Your task to perform on an android device: Show me productivity apps on the Play Store Image 0: 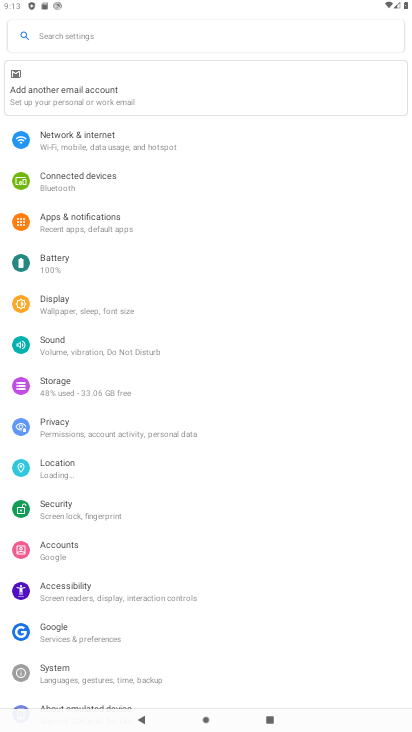
Step 0: press home button
Your task to perform on an android device: Show me productivity apps on the Play Store Image 1: 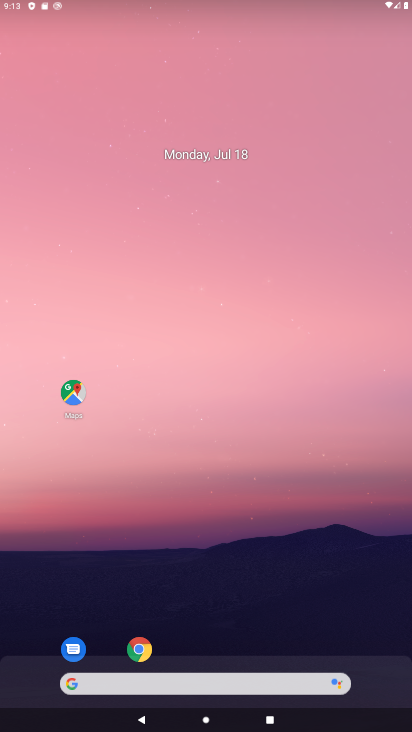
Step 1: drag from (264, 514) to (279, 2)
Your task to perform on an android device: Show me productivity apps on the Play Store Image 2: 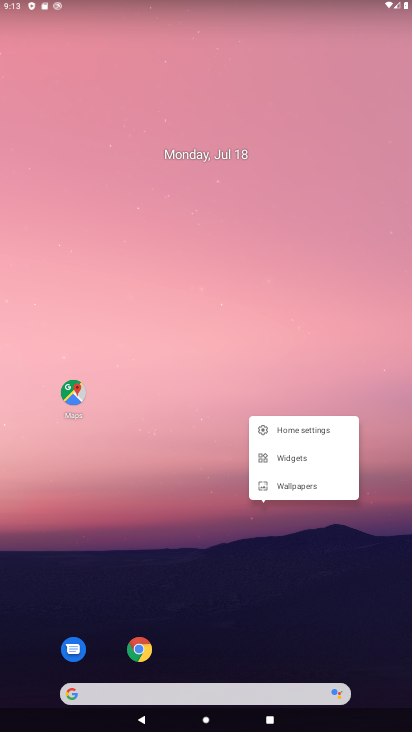
Step 2: click (271, 663)
Your task to perform on an android device: Show me productivity apps on the Play Store Image 3: 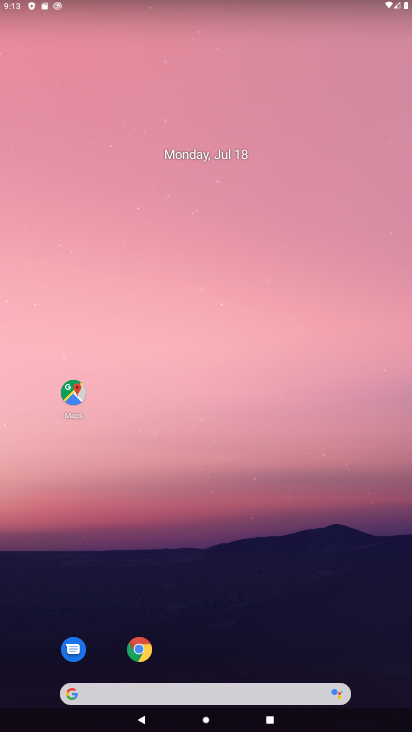
Step 3: drag from (286, 680) to (255, 96)
Your task to perform on an android device: Show me productivity apps on the Play Store Image 4: 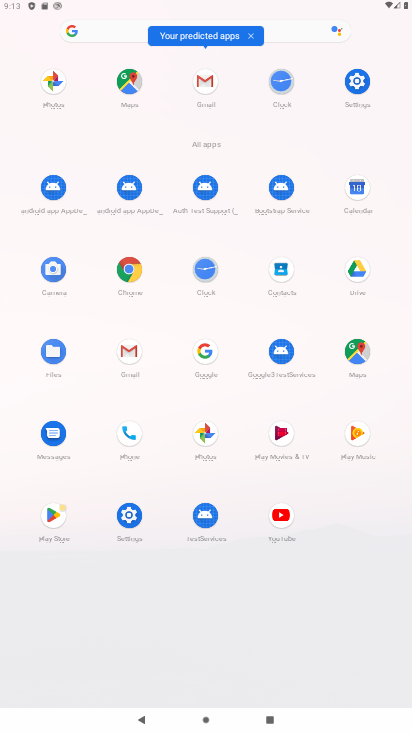
Step 4: click (57, 519)
Your task to perform on an android device: Show me productivity apps on the Play Store Image 5: 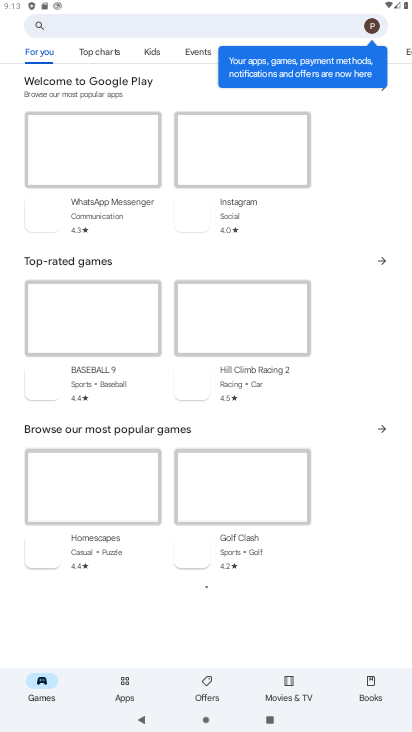
Step 5: click (134, 26)
Your task to perform on an android device: Show me productivity apps on the Play Store Image 6: 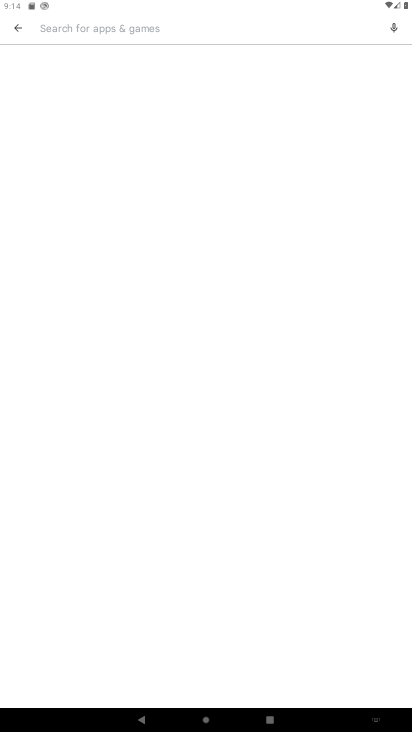
Step 6: type "productivity apps"
Your task to perform on an android device: Show me productivity apps on the Play Store Image 7: 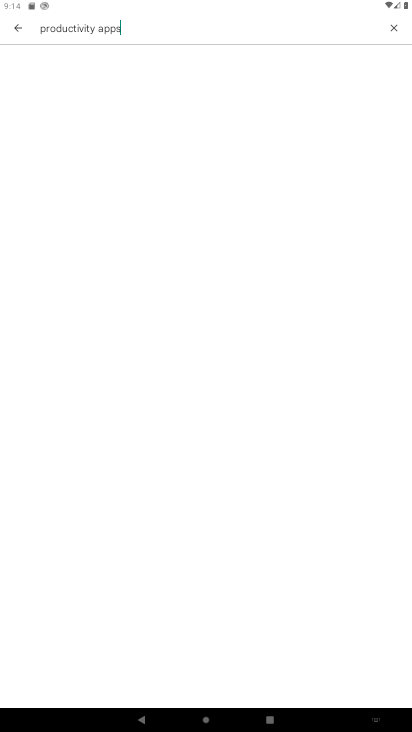
Step 7: press enter
Your task to perform on an android device: Show me productivity apps on the Play Store Image 8: 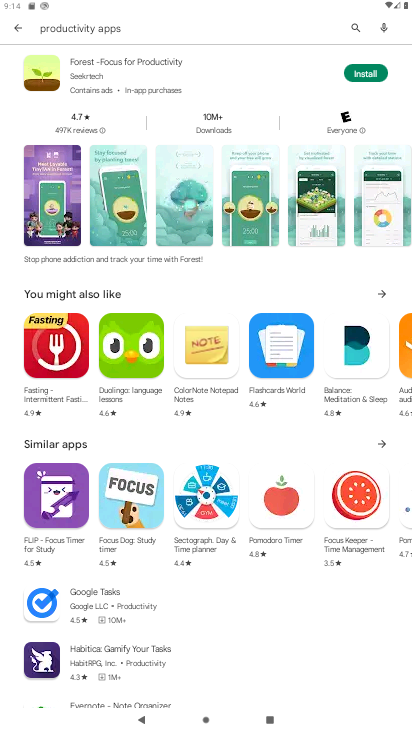
Step 8: task complete